Your task to perform on an android device: Go to settings Image 0: 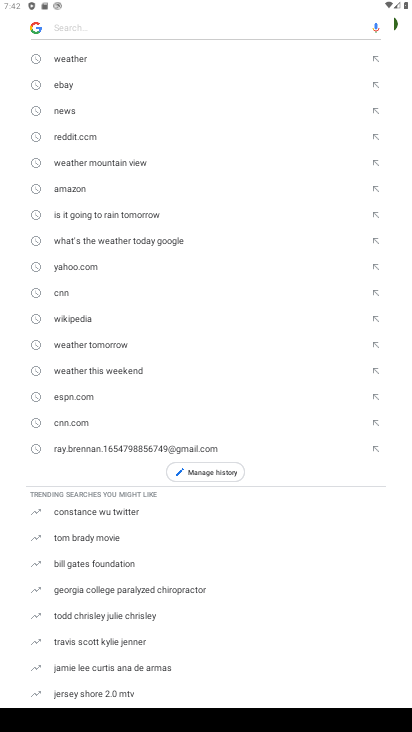
Step 0: press home button
Your task to perform on an android device: Go to settings Image 1: 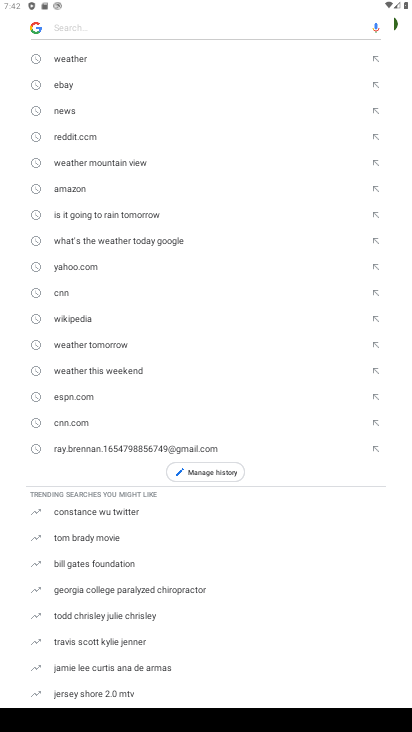
Step 1: press home button
Your task to perform on an android device: Go to settings Image 2: 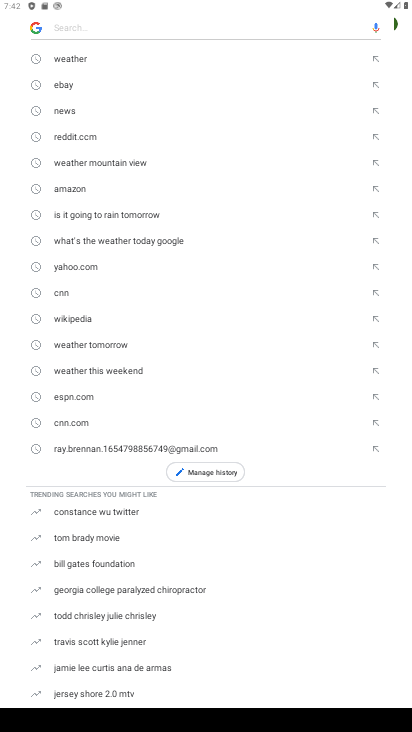
Step 2: click (182, 118)
Your task to perform on an android device: Go to settings Image 3: 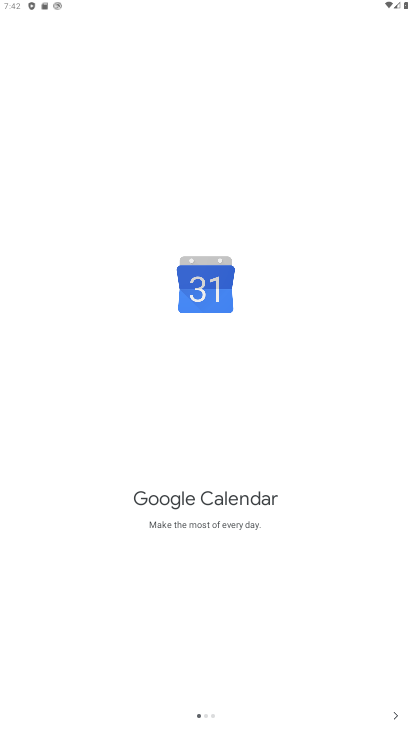
Step 3: drag from (242, 678) to (290, 339)
Your task to perform on an android device: Go to settings Image 4: 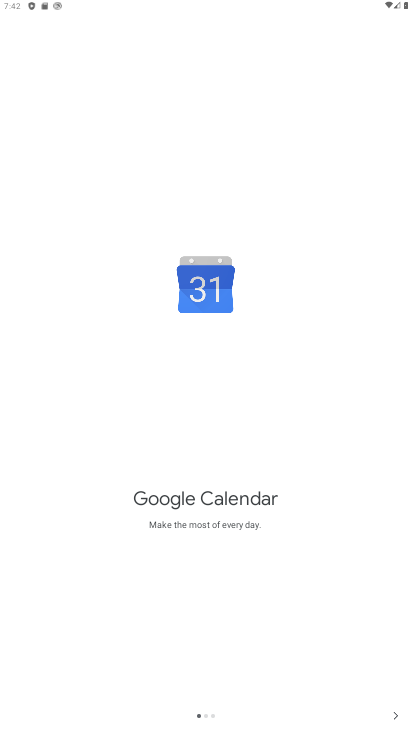
Step 4: drag from (228, 619) to (239, 485)
Your task to perform on an android device: Go to settings Image 5: 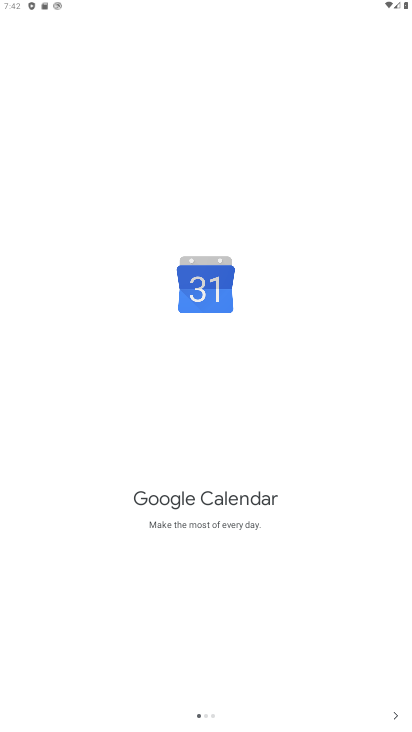
Step 5: click (397, 715)
Your task to perform on an android device: Go to settings Image 6: 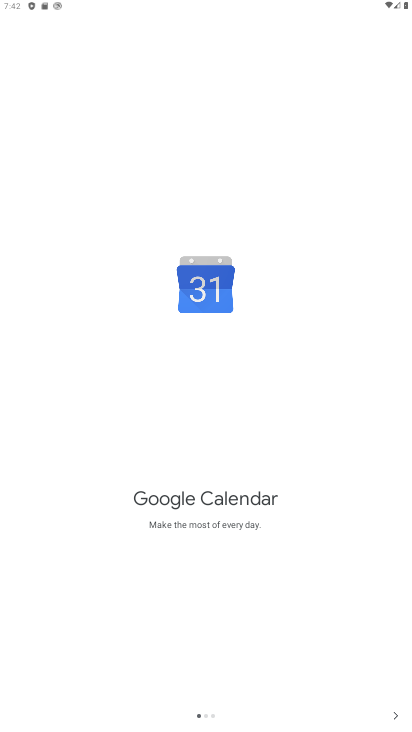
Step 6: click (397, 715)
Your task to perform on an android device: Go to settings Image 7: 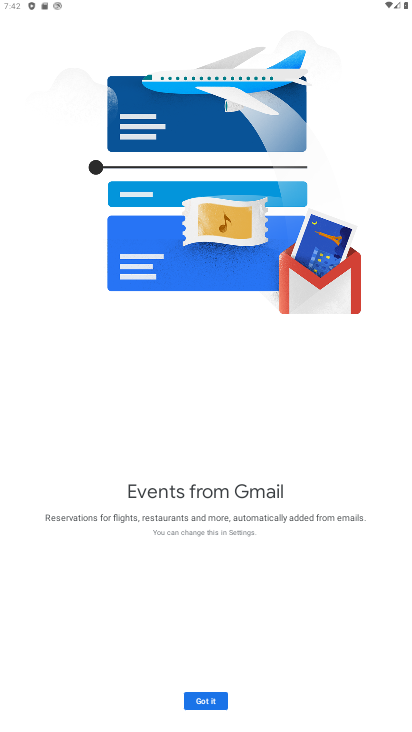
Step 7: click (205, 704)
Your task to perform on an android device: Go to settings Image 8: 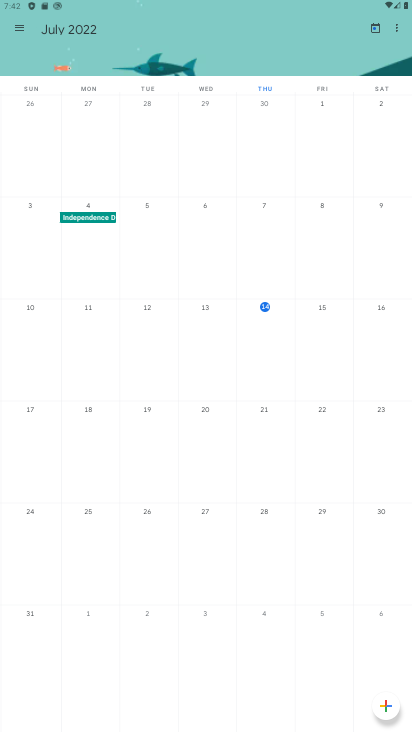
Step 8: press home button
Your task to perform on an android device: Go to settings Image 9: 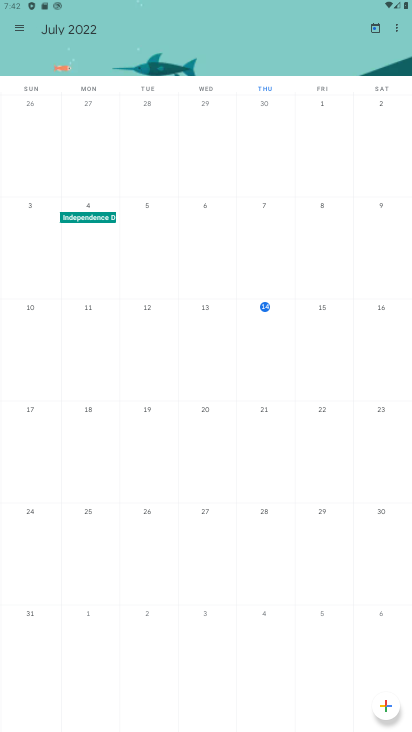
Step 9: press home button
Your task to perform on an android device: Go to settings Image 10: 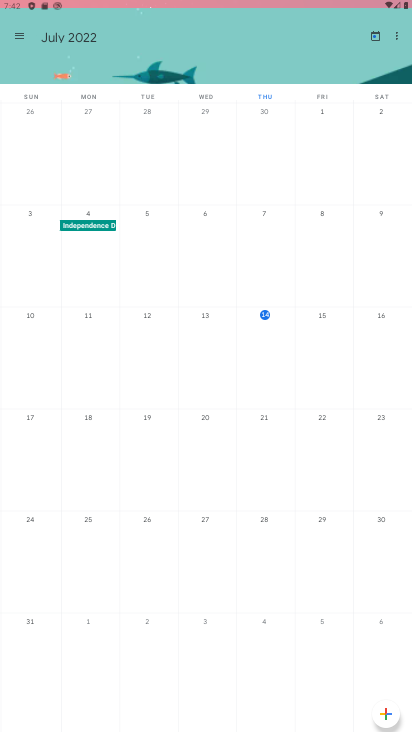
Step 10: click (293, 437)
Your task to perform on an android device: Go to settings Image 11: 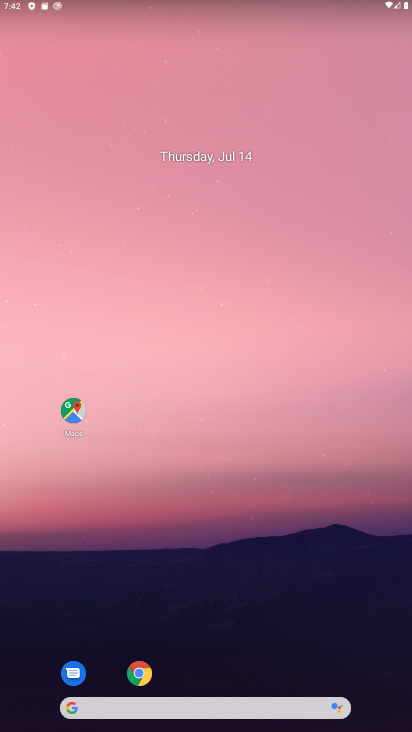
Step 11: drag from (213, 655) to (237, 276)
Your task to perform on an android device: Go to settings Image 12: 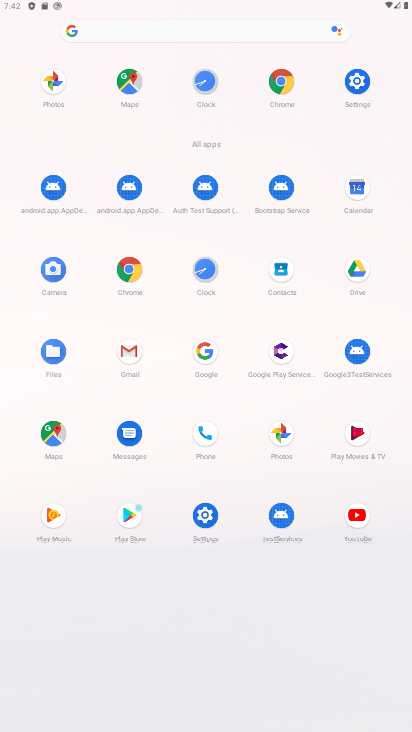
Step 12: click (363, 85)
Your task to perform on an android device: Go to settings Image 13: 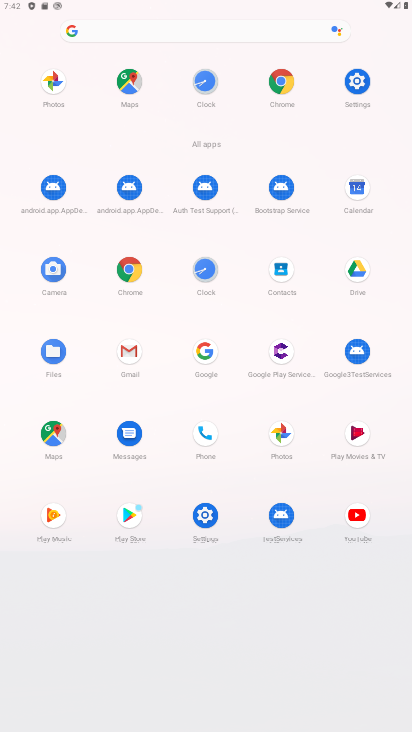
Step 13: click (364, 84)
Your task to perform on an android device: Go to settings Image 14: 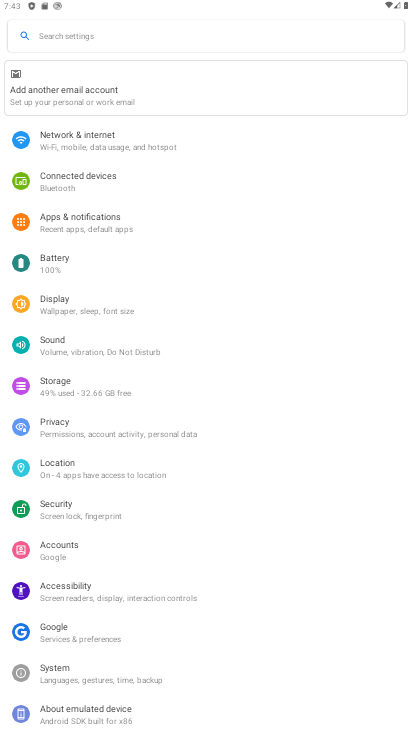
Step 14: task complete